Your task to perform on an android device: see tabs open on other devices in the chrome app Image 0: 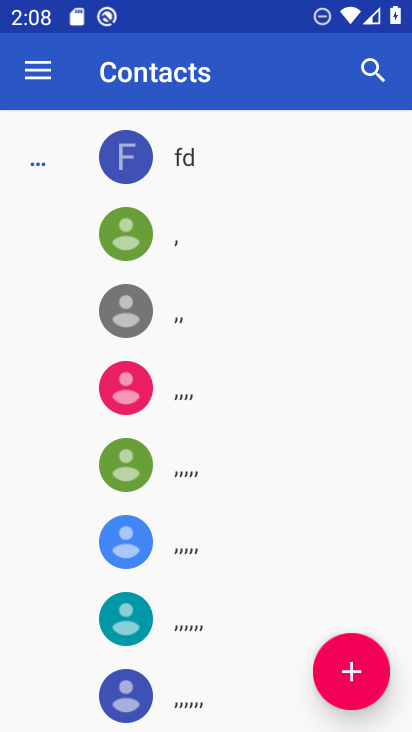
Step 0: press home button
Your task to perform on an android device: see tabs open on other devices in the chrome app Image 1: 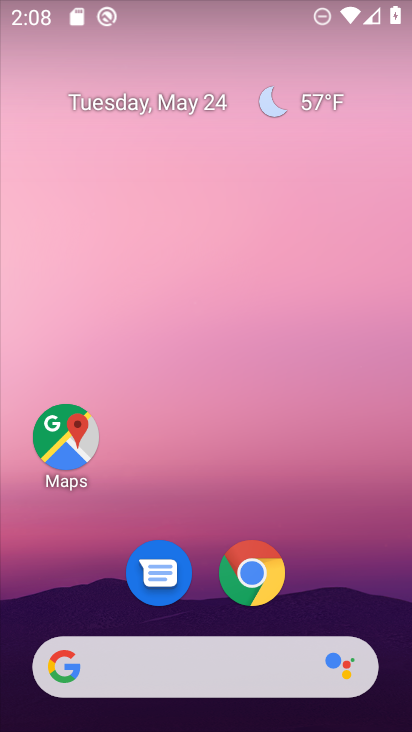
Step 1: drag from (360, 576) to (341, 202)
Your task to perform on an android device: see tabs open on other devices in the chrome app Image 2: 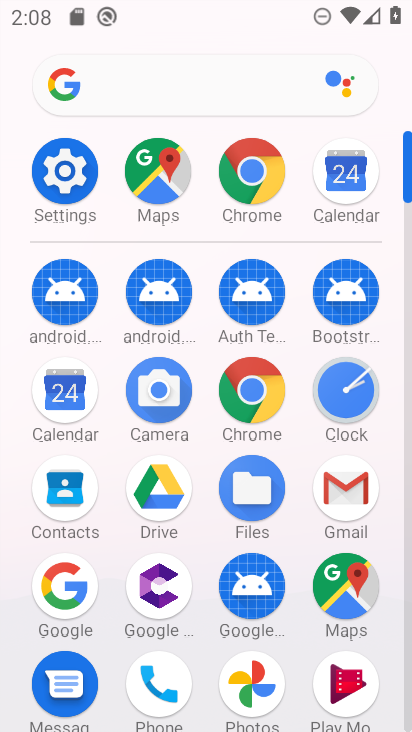
Step 2: click (257, 410)
Your task to perform on an android device: see tabs open on other devices in the chrome app Image 3: 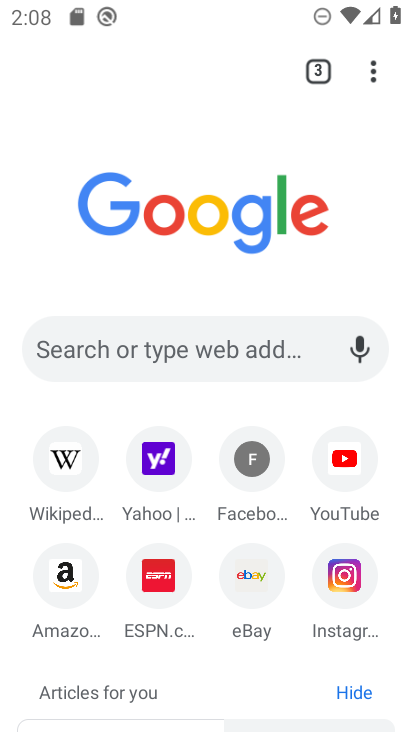
Step 3: click (314, 71)
Your task to perform on an android device: see tabs open on other devices in the chrome app Image 4: 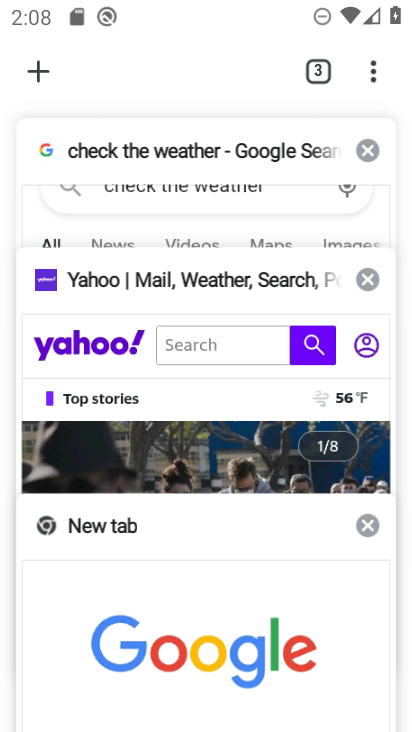
Step 4: task complete